Your task to perform on an android device: Search for pizza restaurants on Maps Image 0: 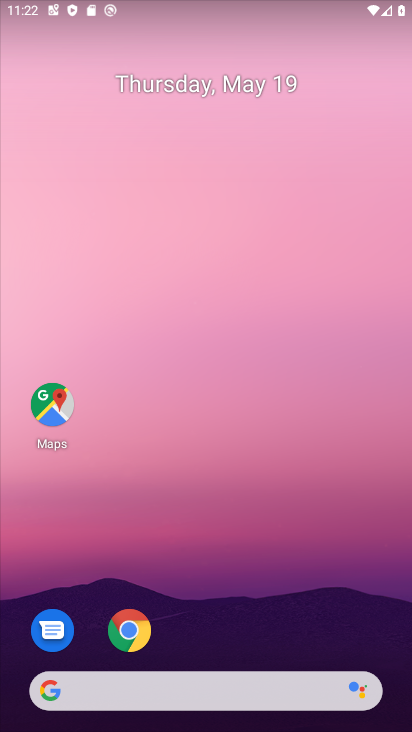
Step 0: click (50, 405)
Your task to perform on an android device: Search for pizza restaurants on Maps Image 1: 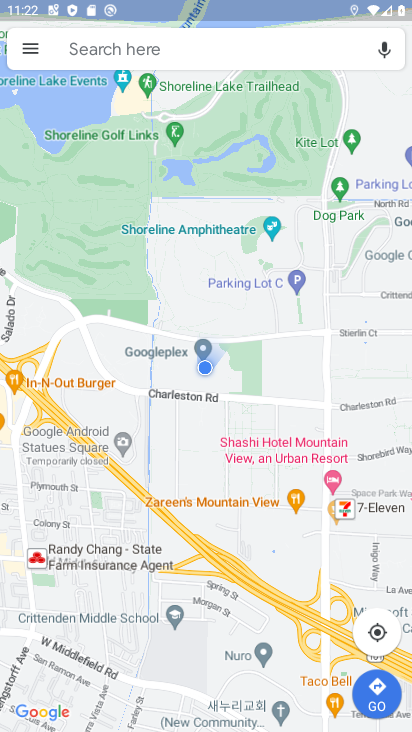
Step 1: click (155, 53)
Your task to perform on an android device: Search for pizza restaurants on Maps Image 2: 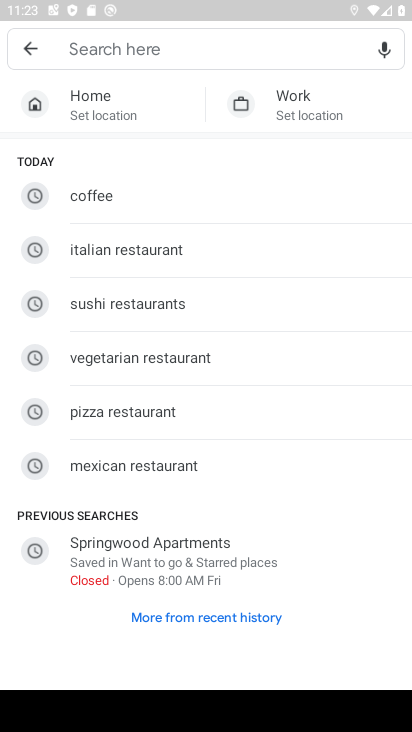
Step 2: type "pizza restaurants"
Your task to perform on an android device: Search for pizza restaurants on Maps Image 3: 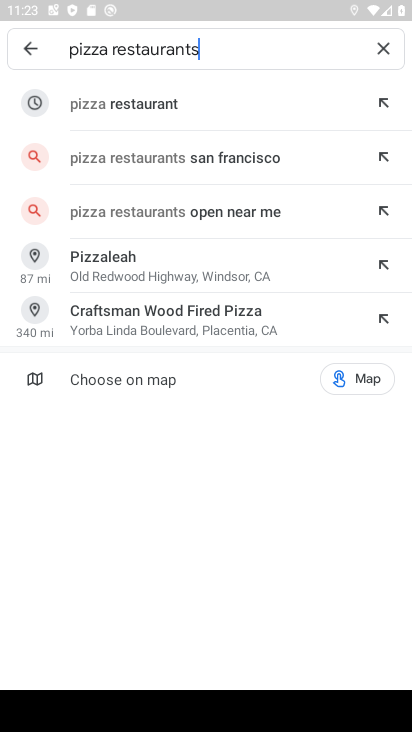
Step 3: click (160, 101)
Your task to perform on an android device: Search for pizza restaurants on Maps Image 4: 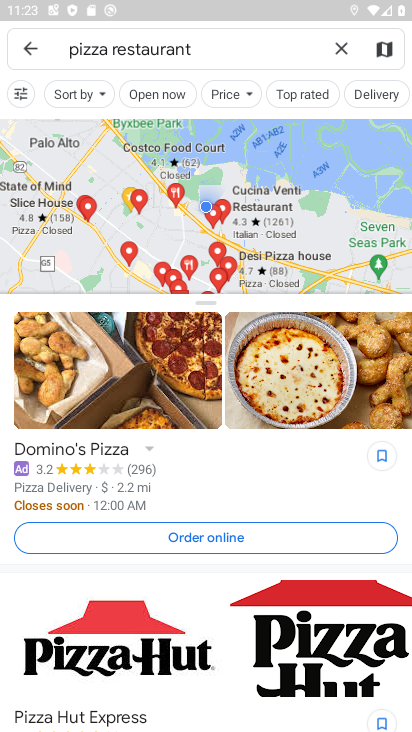
Step 4: task complete